Your task to perform on an android device: change notification settings in the gmail app Image 0: 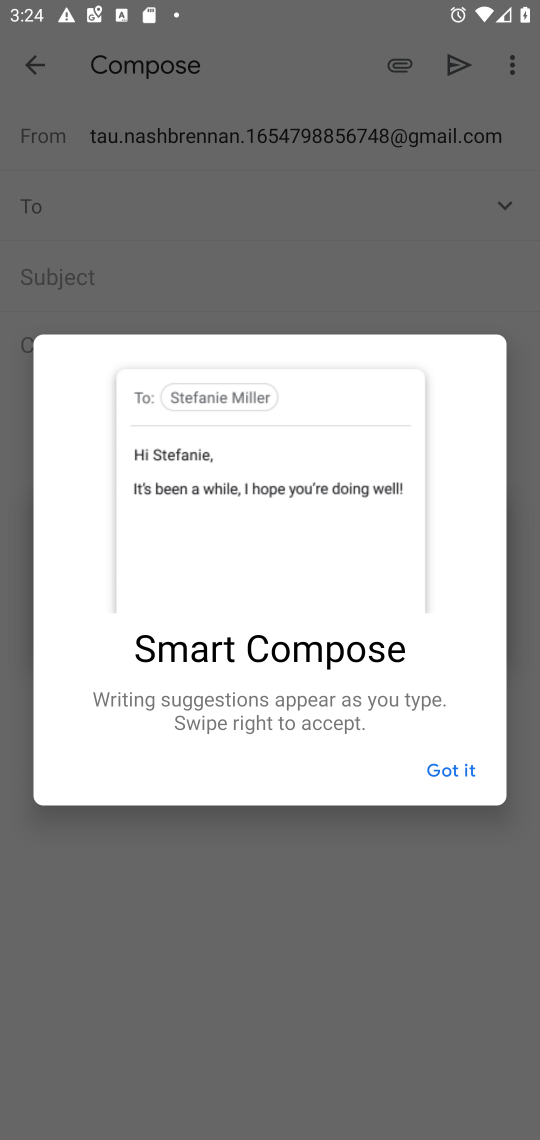
Step 0: press home button
Your task to perform on an android device: change notification settings in the gmail app Image 1: 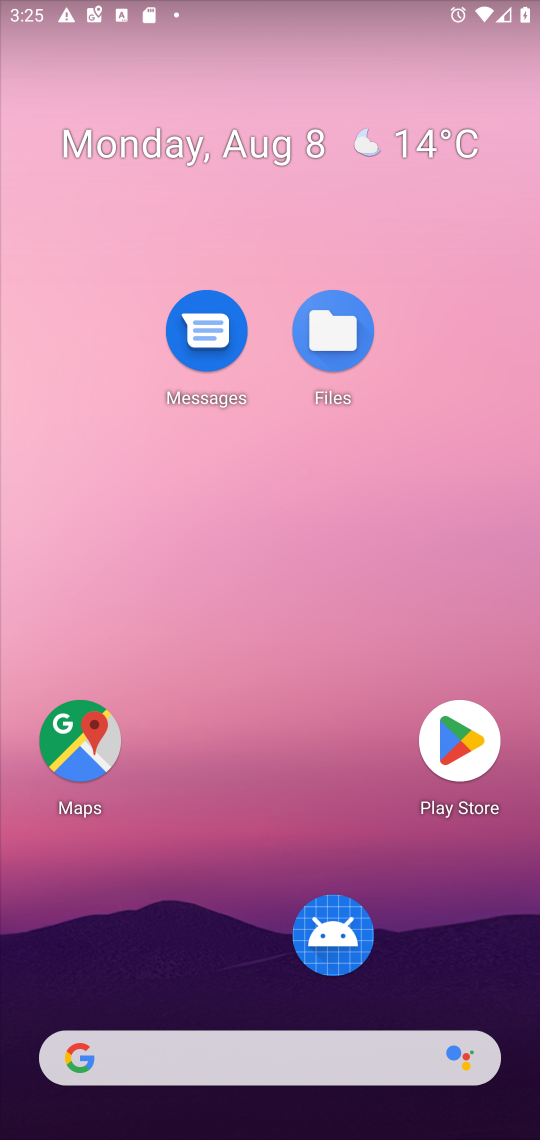
Step 1: drag from (220, 1050) to (239, 272)
Your task to perform on an android device: change notification settings in the gmail app Image 2: 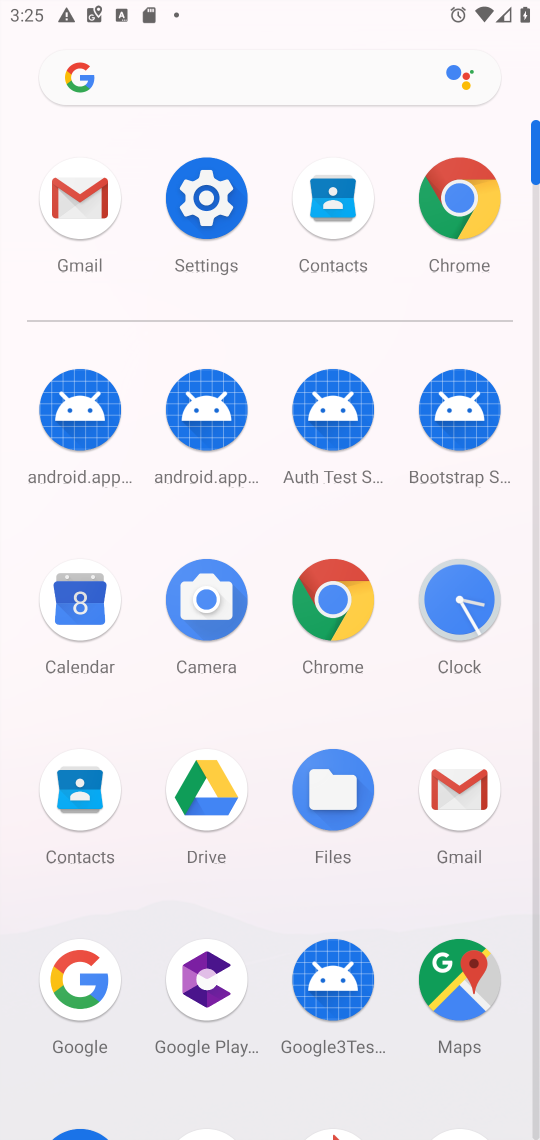
Step 2: click (457, 780)
Your task to perform on an android device: change notification settings in the gmail app Image 3: 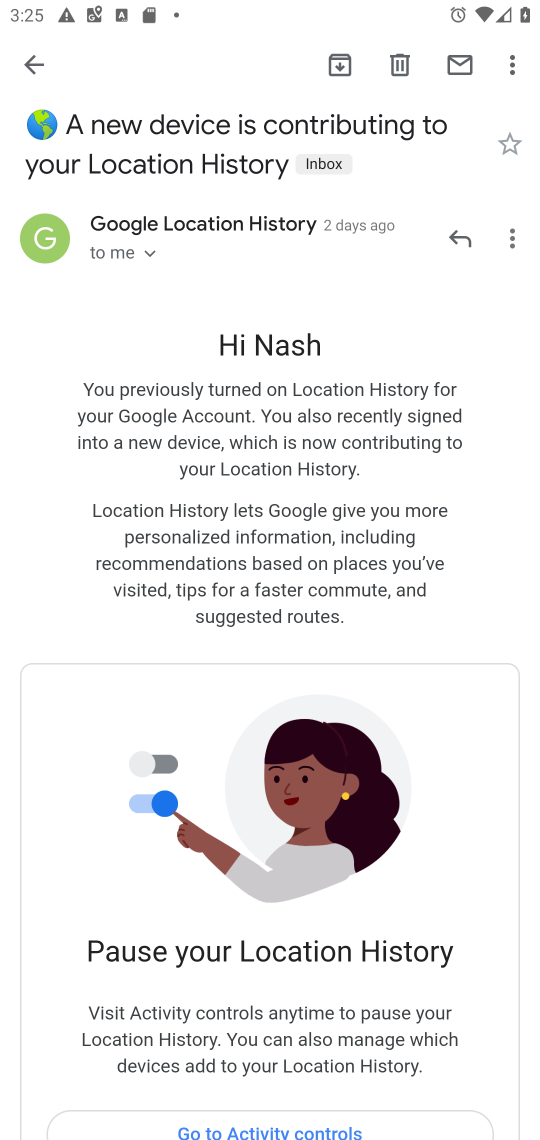
Step 3: click (457, 780)
Your task to perform on an android device: change notification settings in the gmail app Image 4: 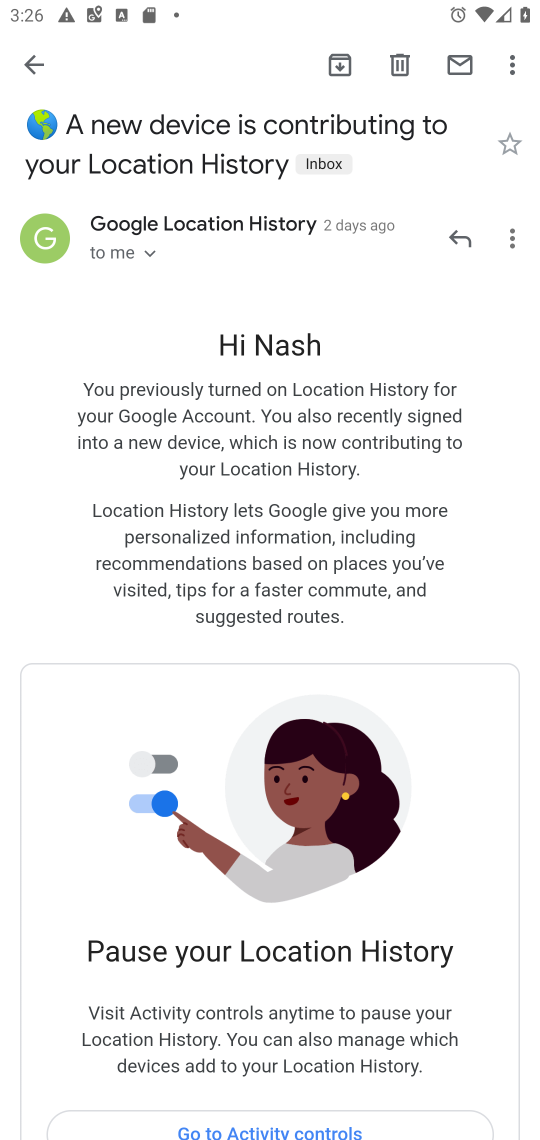
Step 4: press back button
Your task to perform on an android device: change notification settings in the gmail app Image 5: 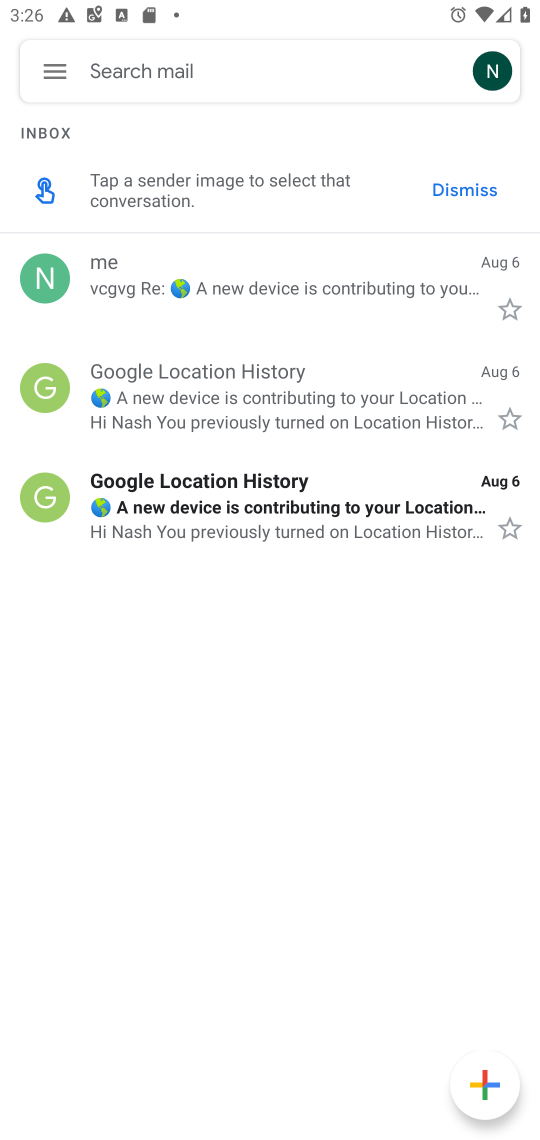
Step 5: click (55, 64)
Your task to perform on an android device: change notification settings in the gmail app Image 6: 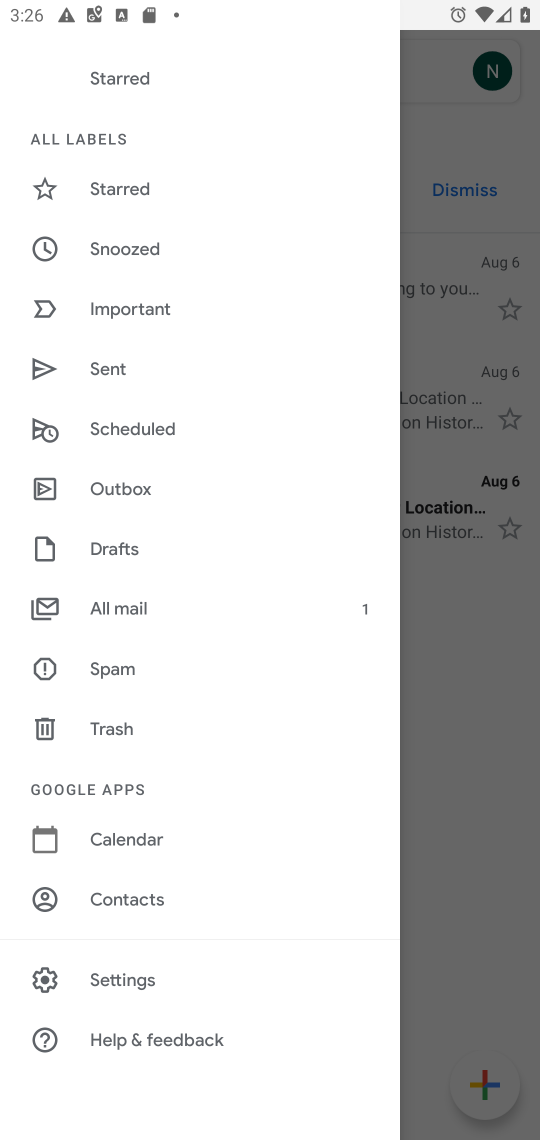
Step 6: click (156, 978)
Your task to perform on an android device: change notification settings in the gmail app Image 7: 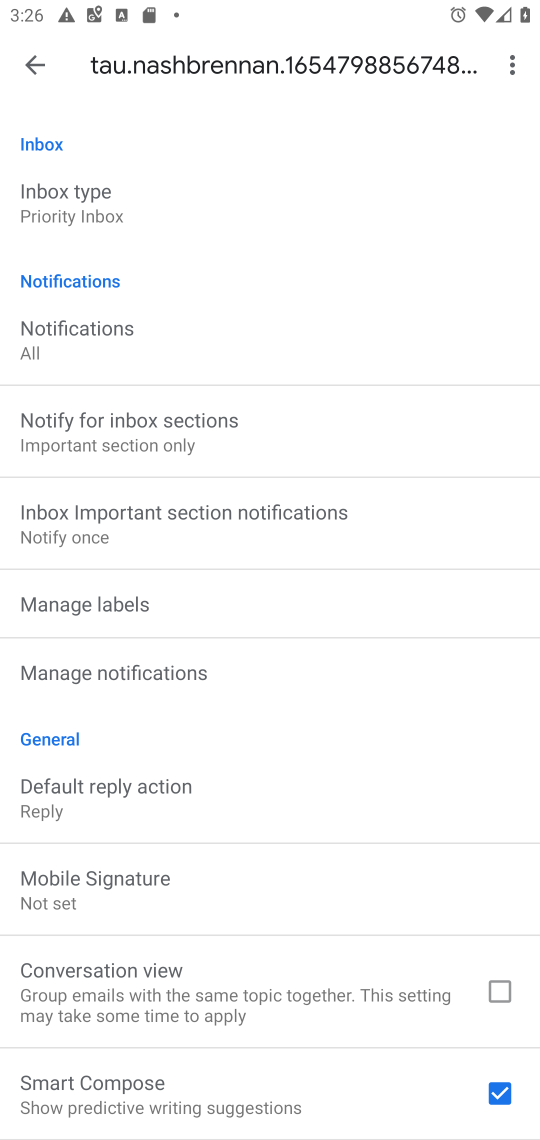
Step 7: click (172, 677)
Your task to perform on an android device: change notification settings in the gmail app Image 8: 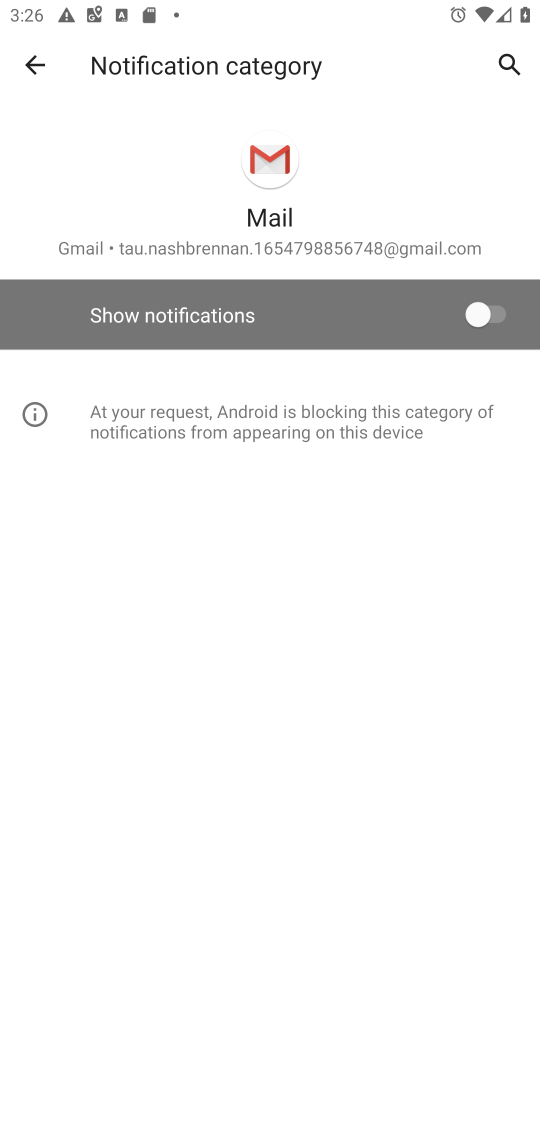
Step 8: click (487, 313)
Your task to perform on an android device: change notification settings in the gmail app Image 9: 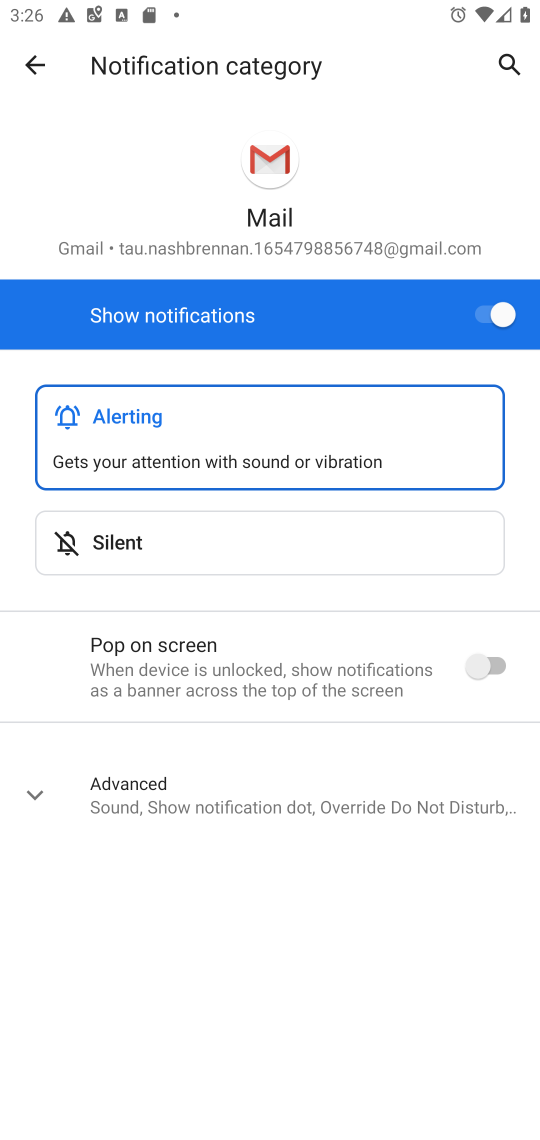
Step 9: task complete